Your task to perform on an android device: What's on my calendar tomorrow? Image 0: 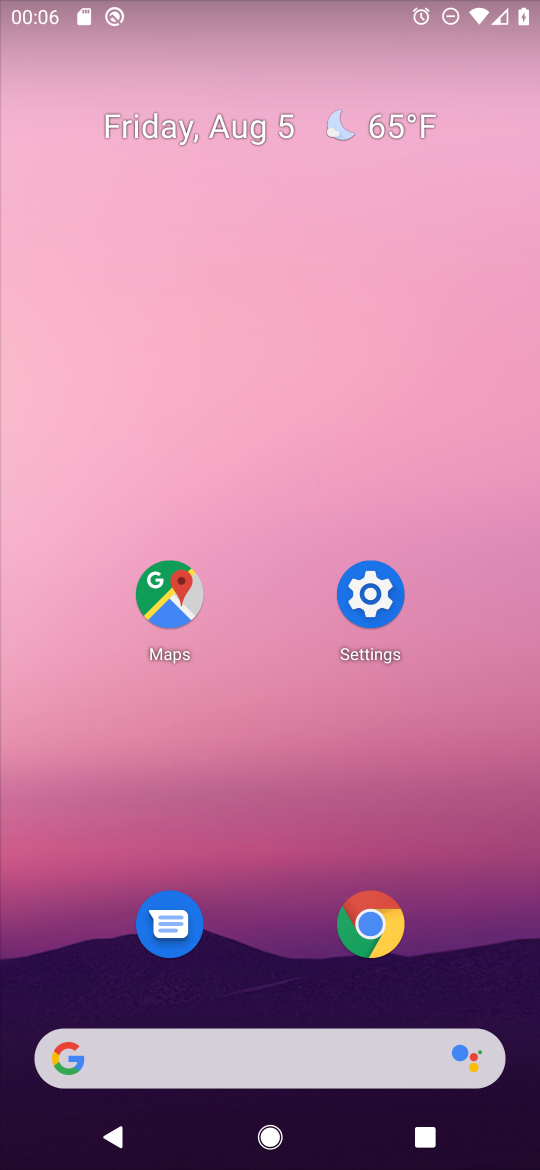
Step 0: press home button
Your task to perform on an android device: What's on my calendar tomorrow? Image 1: 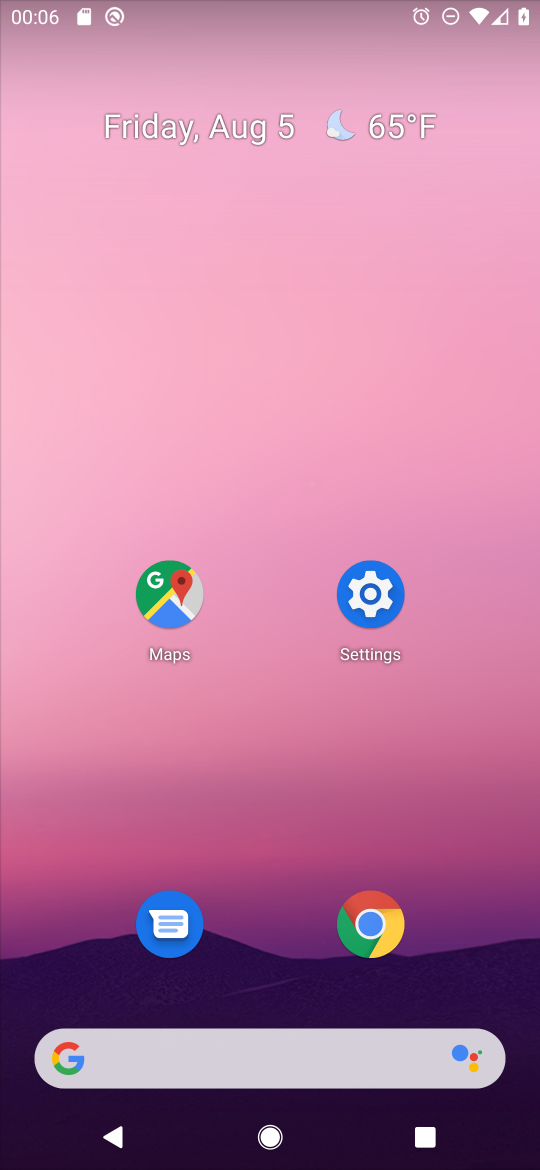
Step 1: drag from (311, 1070) to (457, 428)
Your task to perform on an android device: What's on my calendar tomorrow? Image 2: 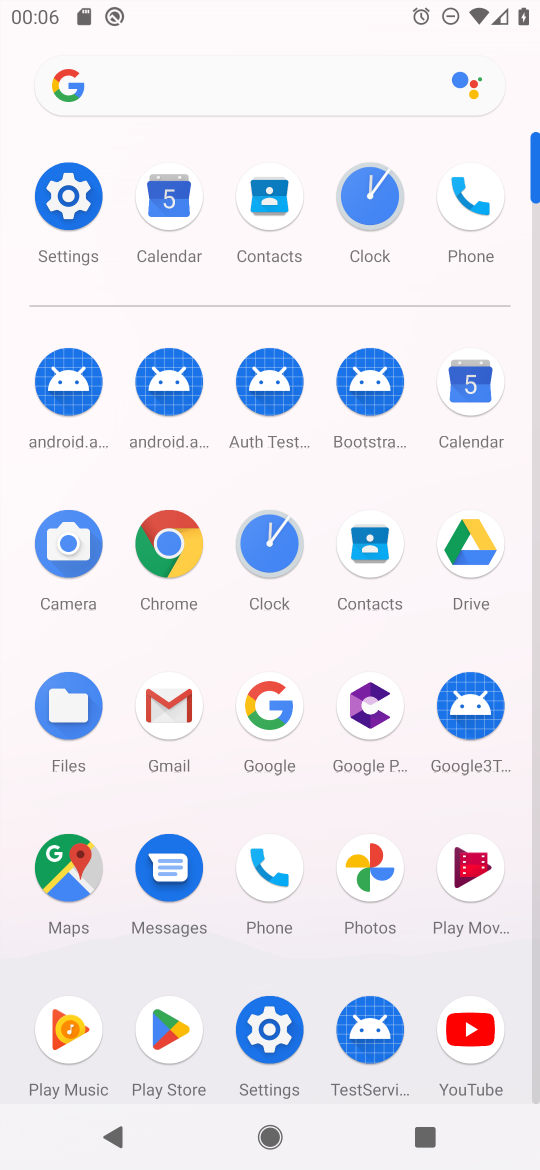
Step 2: click (475, 399)
Your task to perform on an android device: What's on my calendar tomorrow? Image 3: 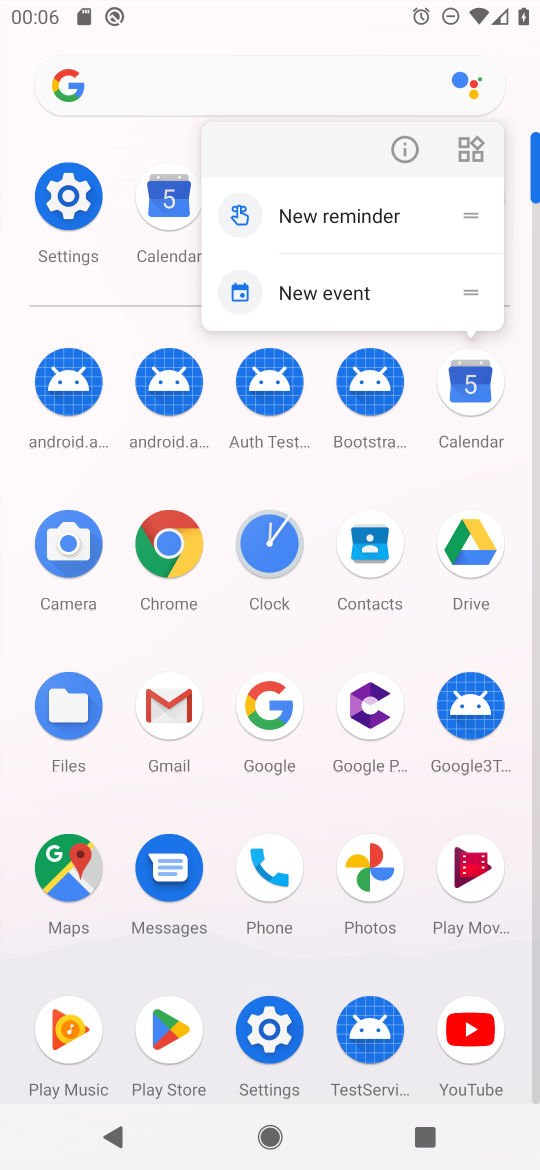
Step 3: click (474, 385)
Your task to perform on an android device: What's on my calendar tomorrow? Image 4: 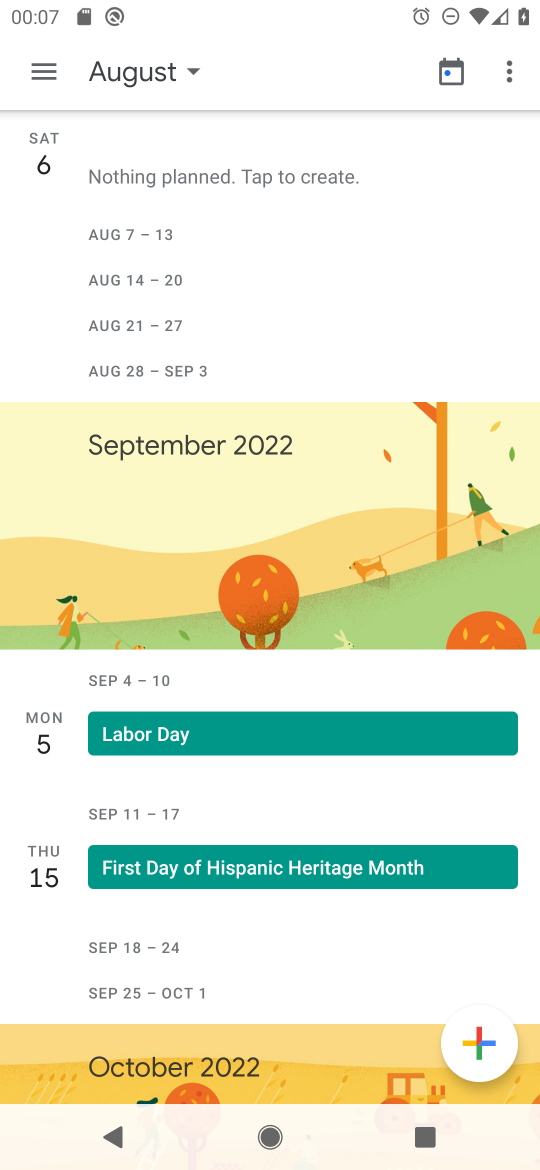
Step 4: task complete